Your task to perform on an android device: see tabs open on other devices in the chrome app Image 0: 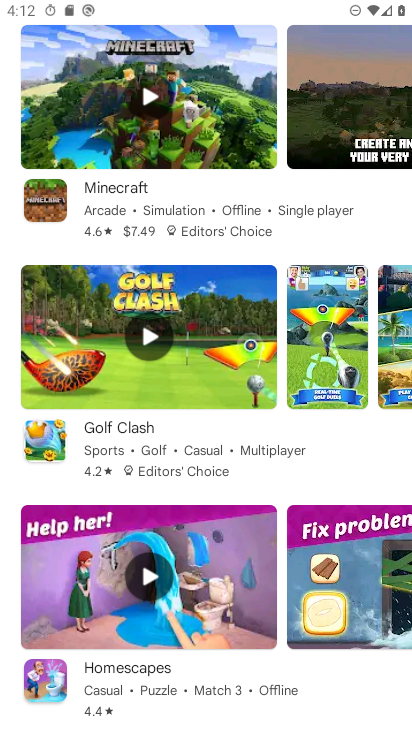
Step 0: press home button
Your task to perform on an android device: see tabs open on other devices in the chrome app Image 1: 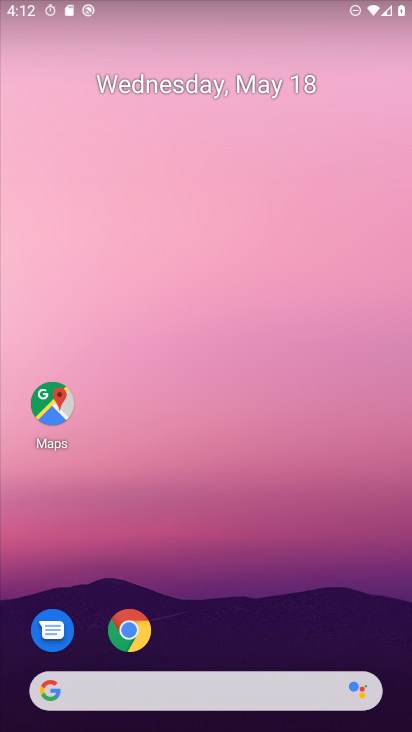
Step 1: click (121, 625)
Your task to perform on an android device: see tabs open on other devices in the chrome app Image 2: 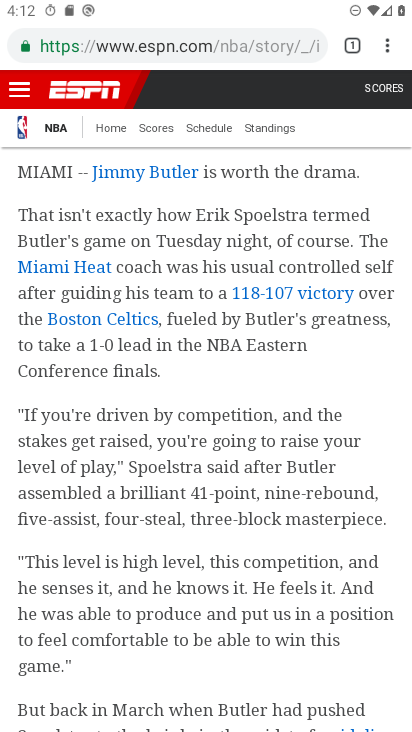
Step 2: click (396, 35)
Your task to perform on an android device: see tabs open on other devices in the chrome app Image 3: 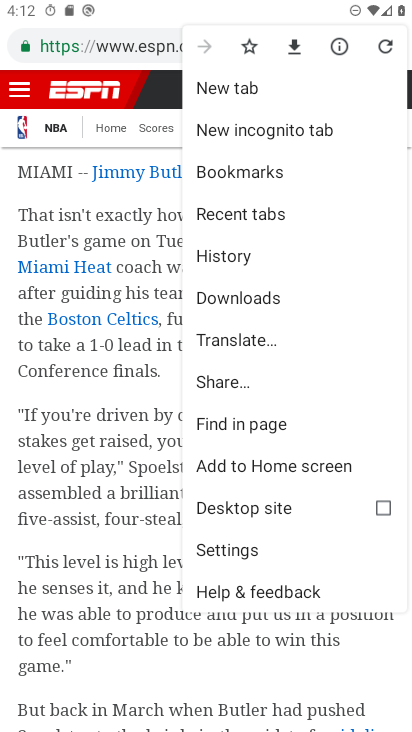
Step 3: click (289, 211)
Your task to perform on an android device: see tabs open on other devices in the chrome app Image 4: 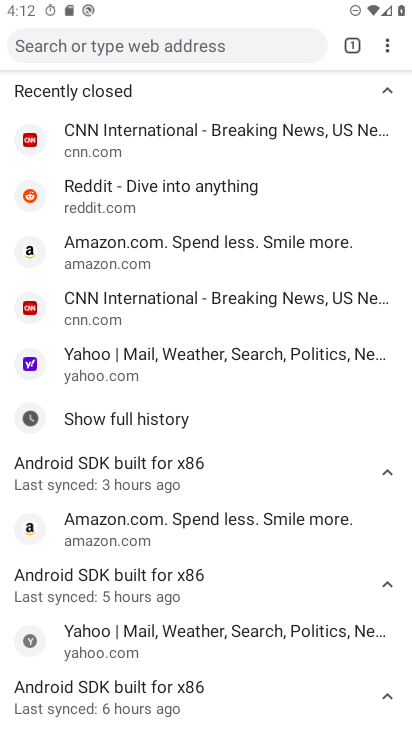
Step 4: task complete